Your task to perform on an android device: Open Youtube and go to the subscriptions tab Image 0: 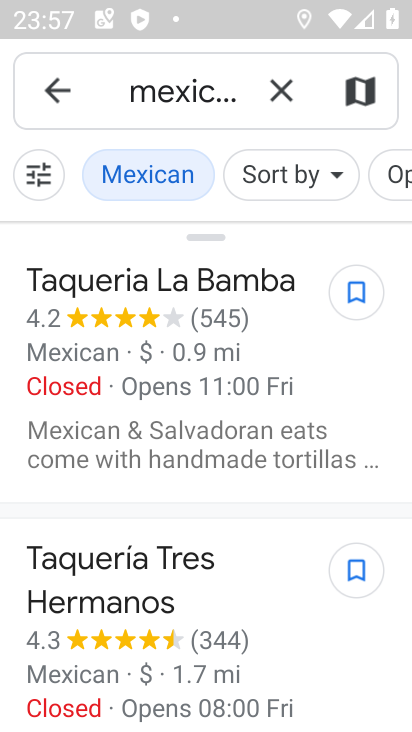
Step 0: press home button
Your task to perform on an android device: Open Youtube and go to the subscriptions tab Image 1: 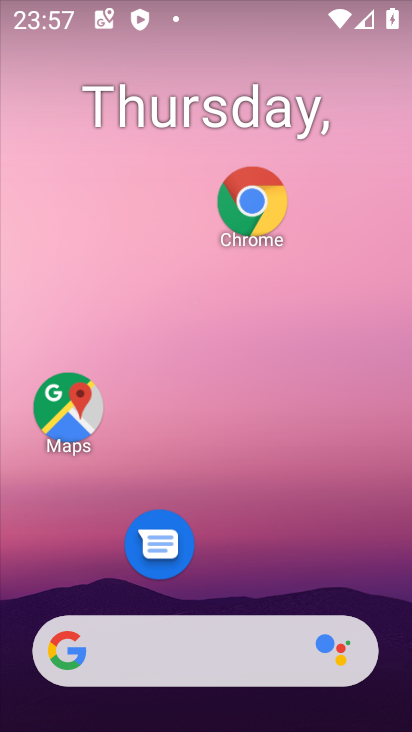
Step 1: drag from (223, 584) to (223, 59)
Your task to perform on an android device: Open Youtube and go to the subscriptions tab Image 2: 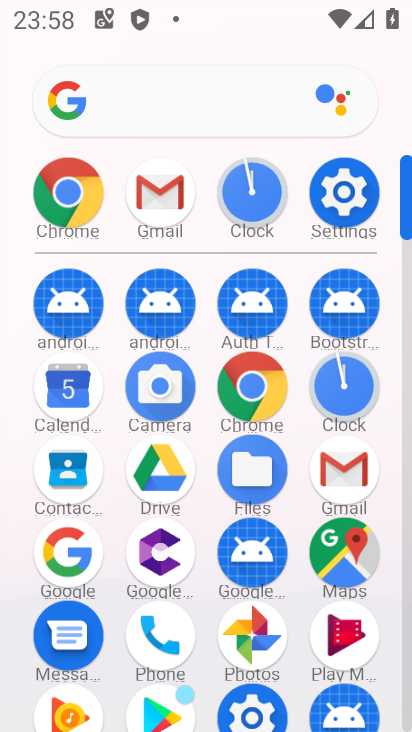
Step 2: drag from (203, 608) to (207, 127)
Your task to perform on an android device: Open Youtube and go to the subscriptions tab Image 3: 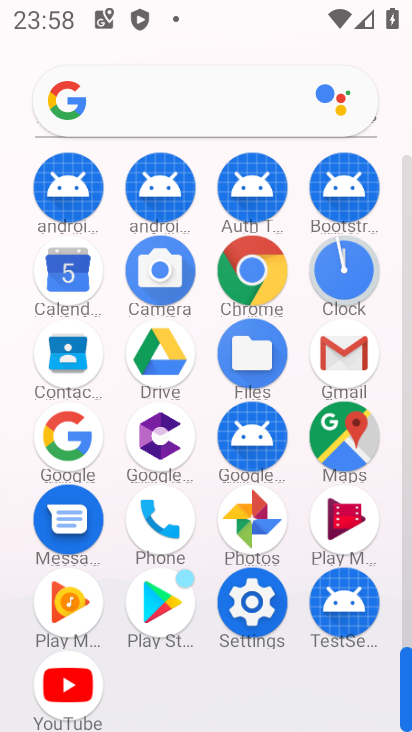
Step 3: click (66, 685)
Your task to perform on an android device: Open Youtube and go to the subscriptions tab Image 4: 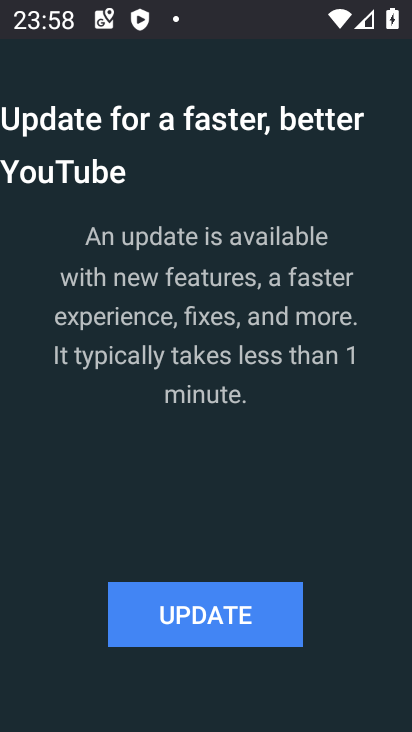
Step 4: press home button
Your task to perform on an android device: Open Youtube and go to the subscriptions tab Image 5: 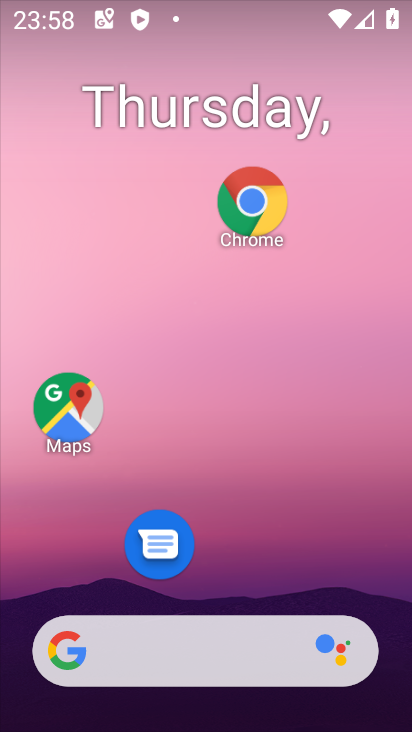
Step 5: drag from (210, 599) to (217, 57)
Your task to perform on an android device: Open Youtube and go to the subscriptions tab Image 6: 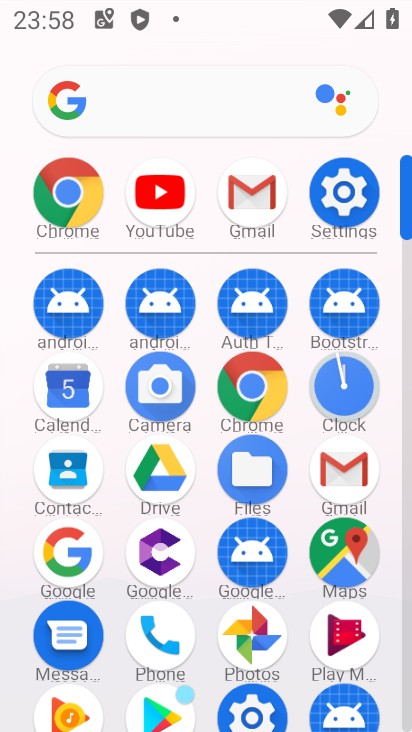
Step 6: click (157, 184)
Your task to perform on an android device: Open Youtube and go to the subscriptions tab Image 7: 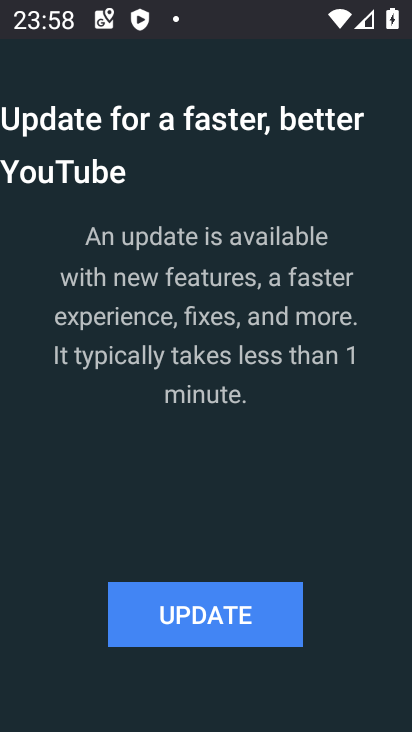
Step 7: press home button
Your task to perform on an android device: Open Youtube and go to the subscriptions tab Image 8: 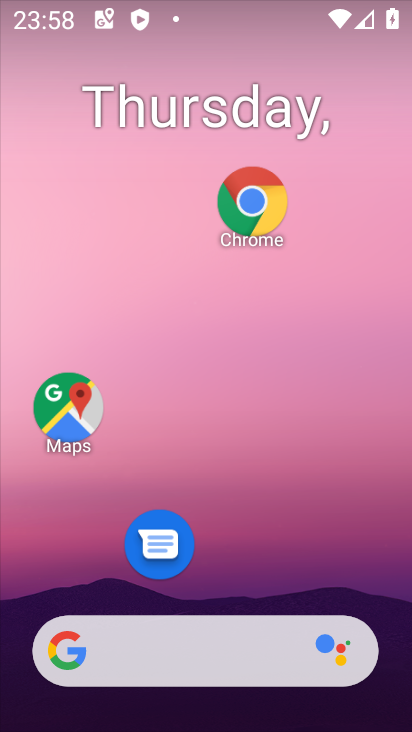
Step 8: drag from (226, 578) to (231, 61)
Your task to perform on an android device: Open Youtube and go to the subscriptions tab Image 9: 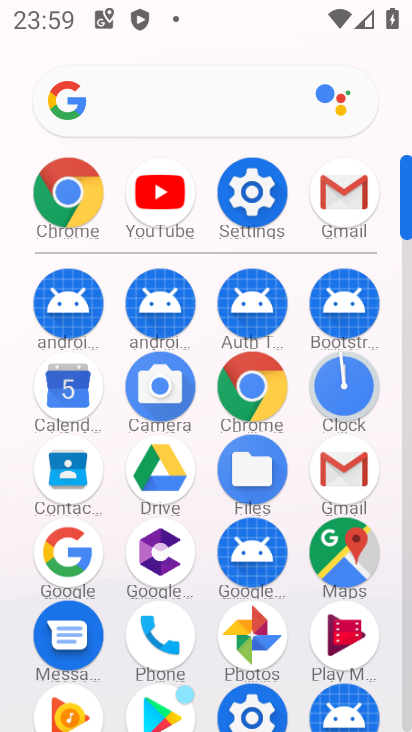
Step 9: drag from (230, 552) to (211, 68)
Your task to perform on an android device: Open Youtube and go to the subscriptions tab Image 10: 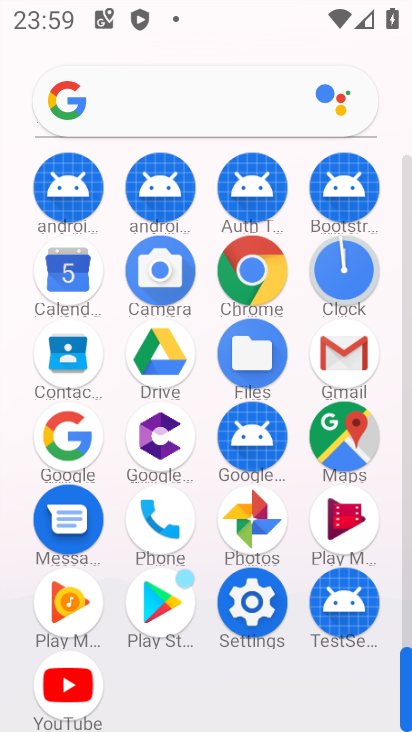
Step 10: click (73, 691)
Your task to perform on an android device: Open Youtube and go to the subscriptions tab Image 11: 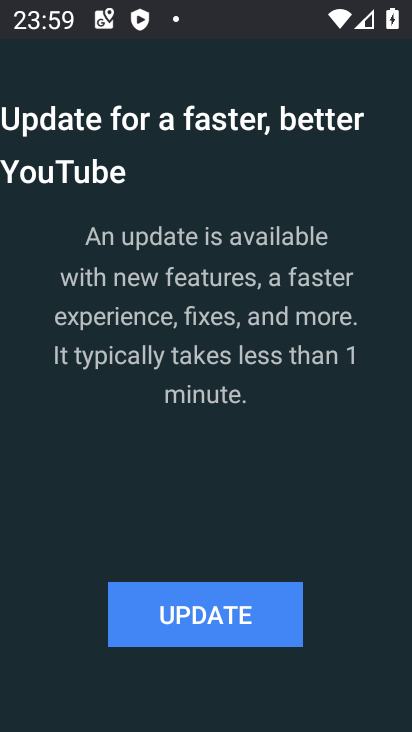
Step 11: click (197, 614)
Your task to perform on an android device: Open Youtube and go to the subscriptions tab Image 12: 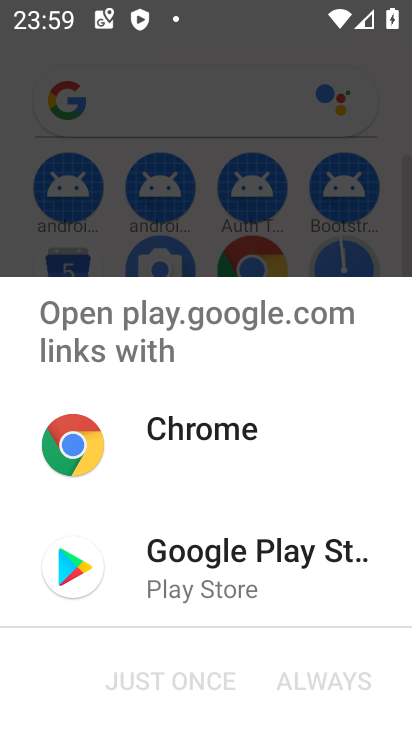
Step 12: click (134, 555)
Your task to perform on an android device: Open Youtube and go to the subscriptions tab Image 13: 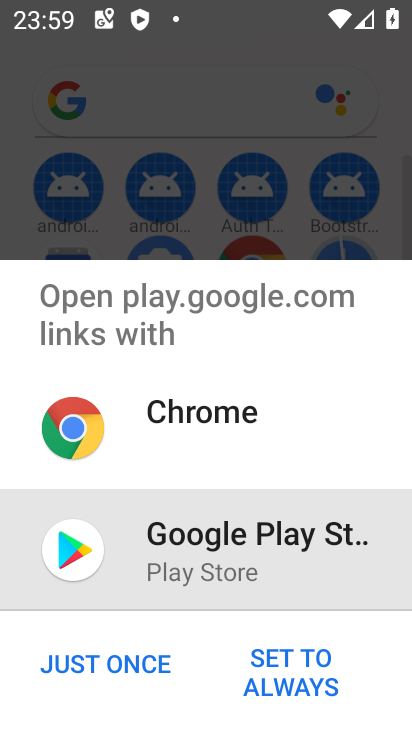
Step 13: click (109, 664)
Your task to perform on an android device: Open Youtube and go to the subscriptions tab Image 14: 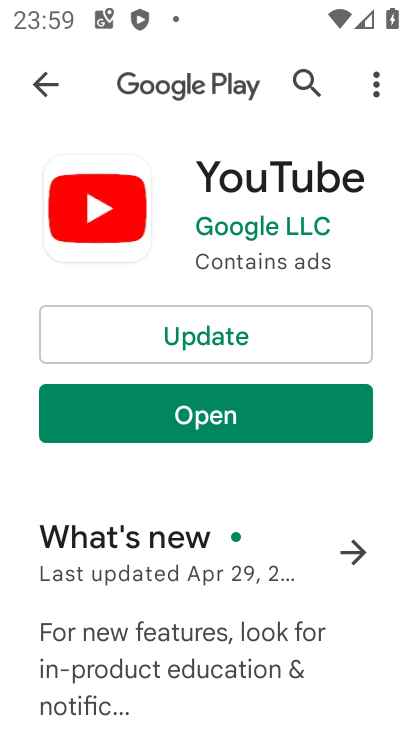
Step 14: click (216, 335)
Your task to perform on an android device: Open Youtube and go to the subscriptions tab Image 15: 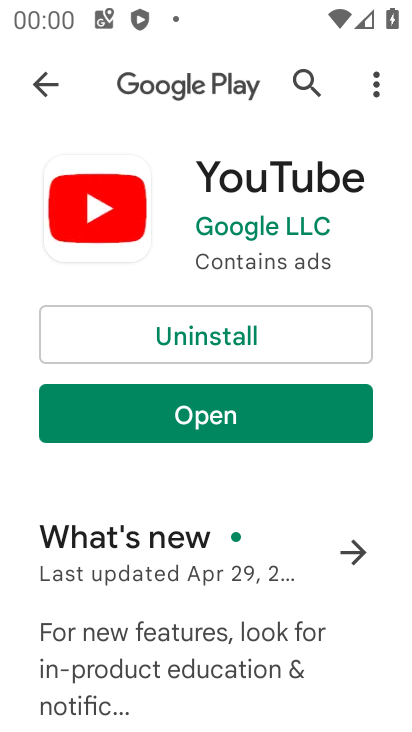
Step 15: click (219, 420)
Your task to perform on an android device: Open Youtube and go to the subscriptions tab Image 16: 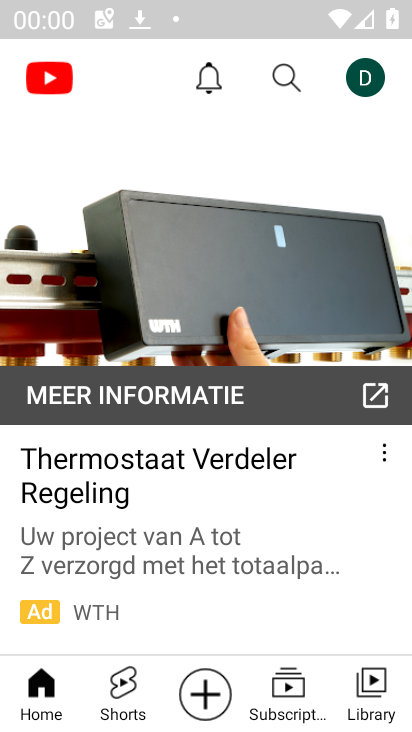
Step 16: click (283, 683)
Your task to perform on an android device: Open Youtube and go to the subscriptions tab Image 17: 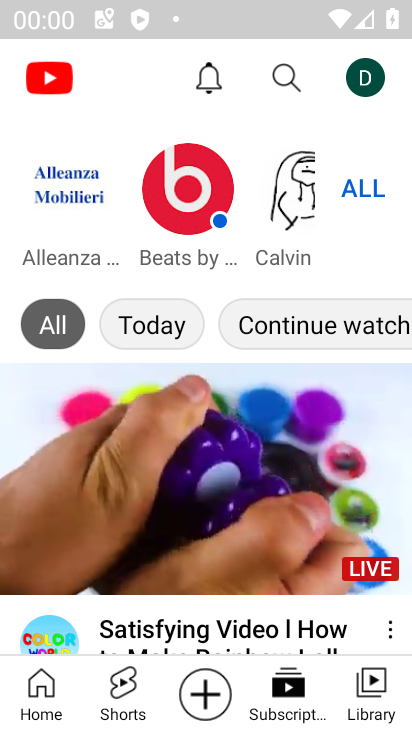
Step 17: task complete